Your task to perform on an android device: What's the weather going to be this weekend? Image 0: 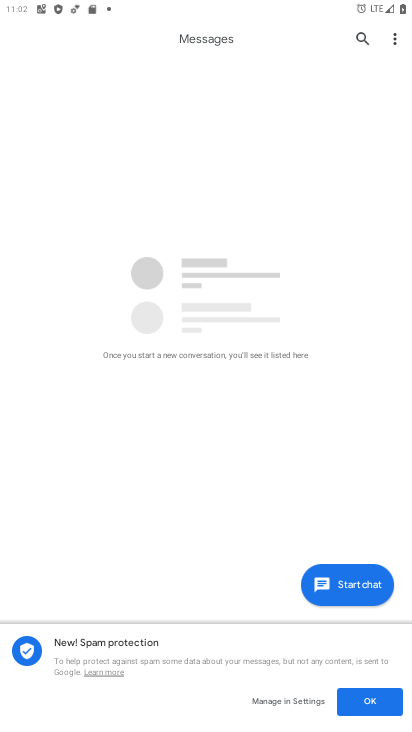
Step 0: press home button
Your task to perform on an android device: What's the weather going to be this weekend? Image 1: 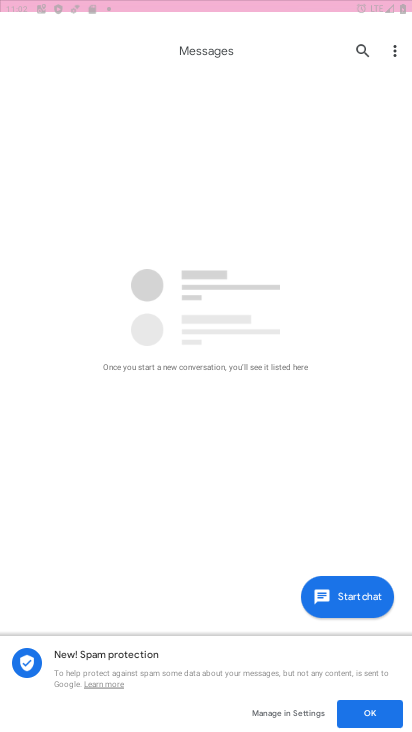
Step 1: drag from (185, 620) to (258, 261)
Your task to perform on an android device: What's the weather going to be this weekend? Image 2: 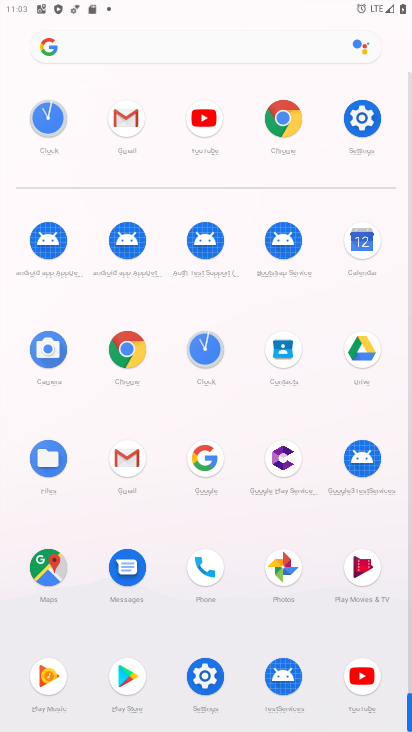
Step 2: click (361, 224)
Your task to perform on an android device: What's the weather going to be this weekend? Image 3: 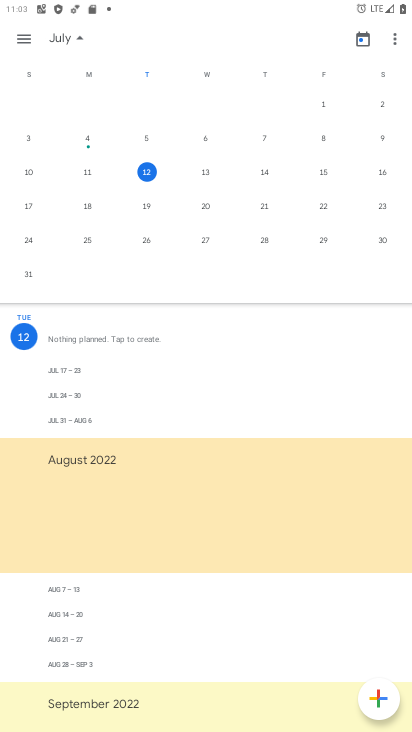
Step 3: drag from (173, 571) to (197, 334)
Your task to perform on an android device: What's the weather going to be this weekend? Image 4: 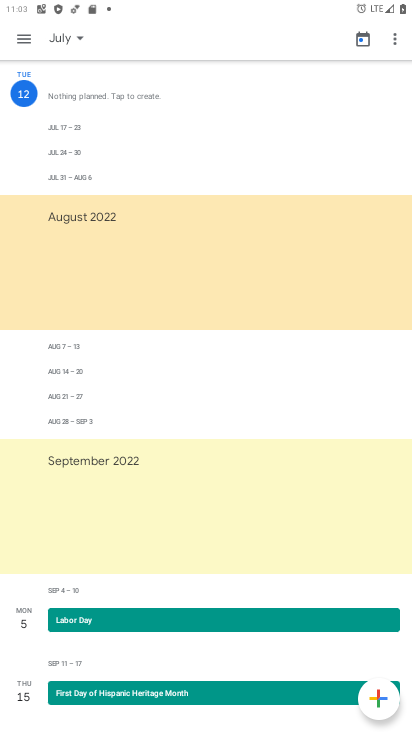
Step 4: press home button
Your task to perform on an android device: What's the weather going to be this weekend? Image 5: 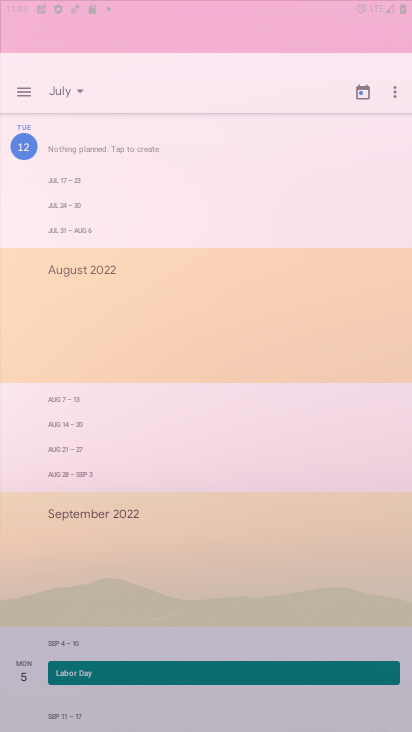
Step 5: drag from (164, 613) to (281, 170)
Your task to perform on an android device: What's the weather going to be this weekend? Image 6: 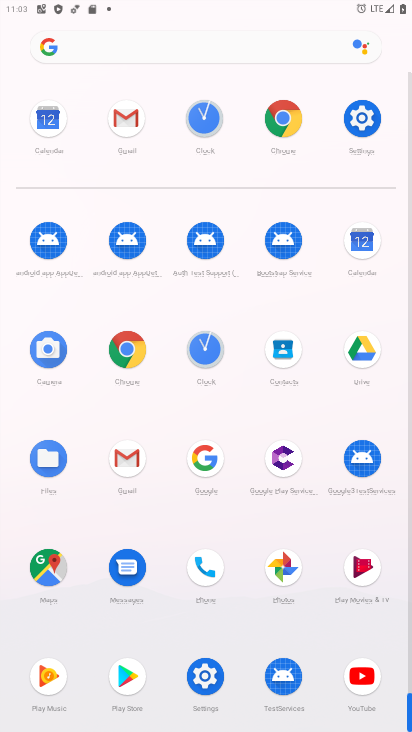
Step 6: click (194, 47)
Your task to perform on an android device: What's the weather going to be this weekend? Image 7: 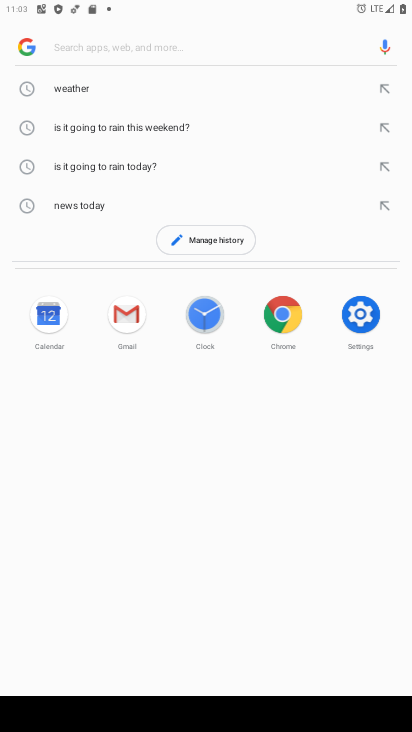
Step 7: type "What's the weather going to be this weekend?"
Your task to perform on an android device: What's the weather going to be this weekend? Image 8: 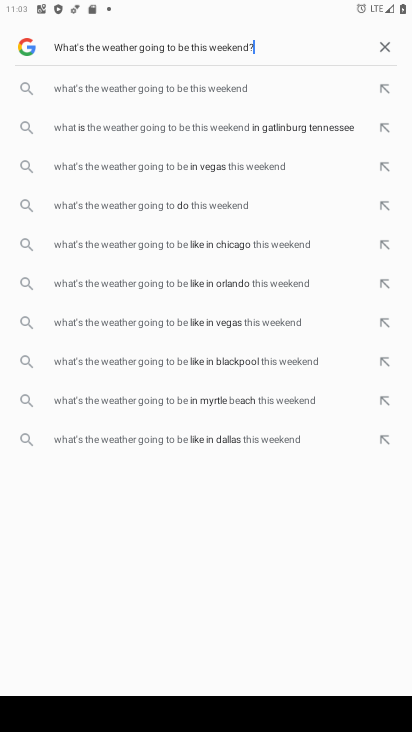
Step 8: type ""
Your task to perform on an android device: What's the weather going to be this weekend? Image 9: 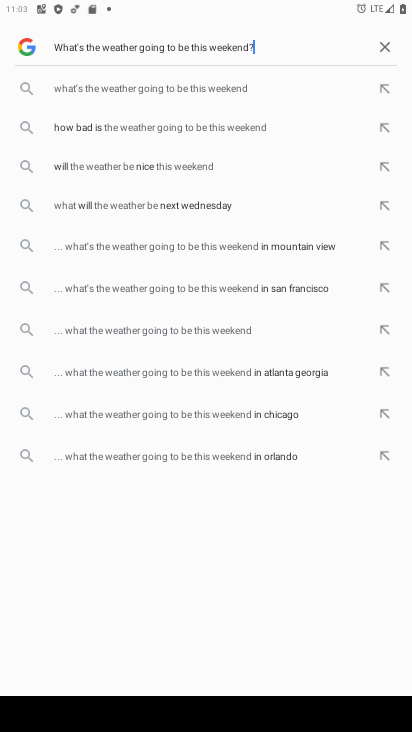
Step 9: click (148, 89)
Your task to perform on an android device: What's the weather going to be this weekend? Image 10: 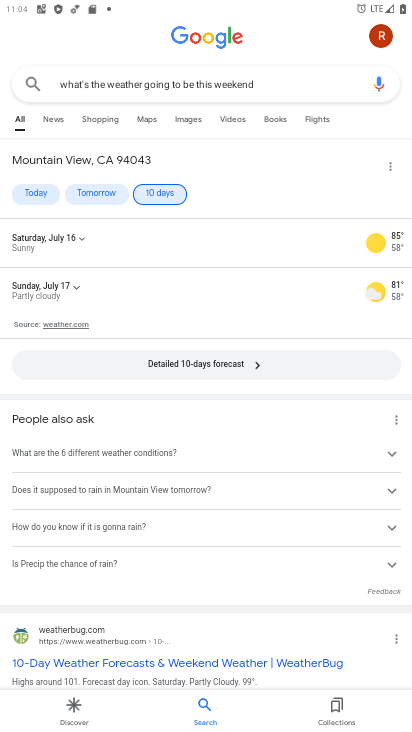
Step 10: task complete